Your task to perform on an android device: toggle data saver in the chrome app Image 0: 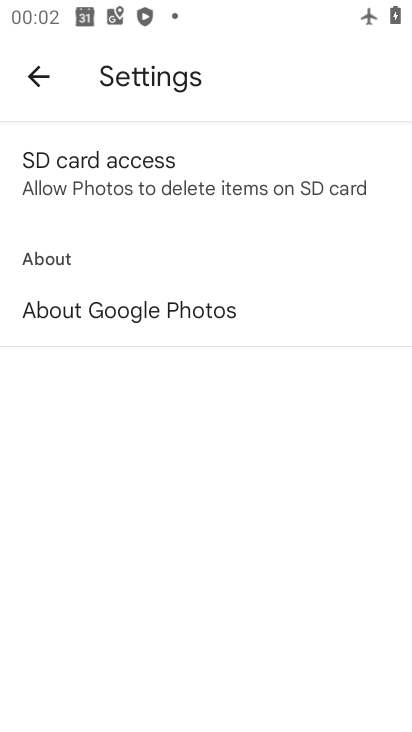
Step 0: press home button
Your task to perform on an android device: toggle data saver in the chrome app Image 1: 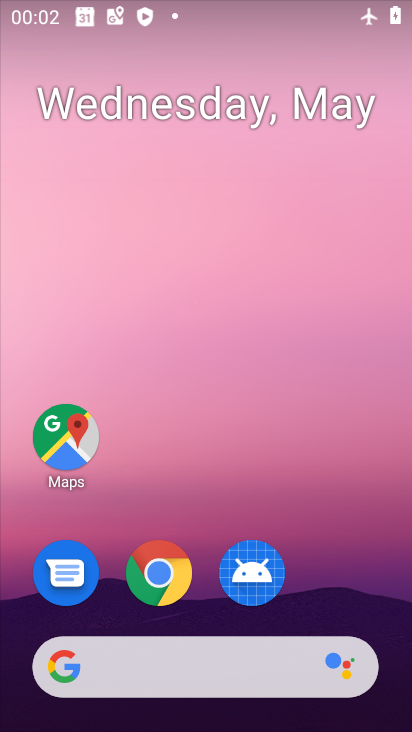
Step 1: click (158, 572)
Your task to perform on an android device: toggle data saver in the chrome app Image 2: 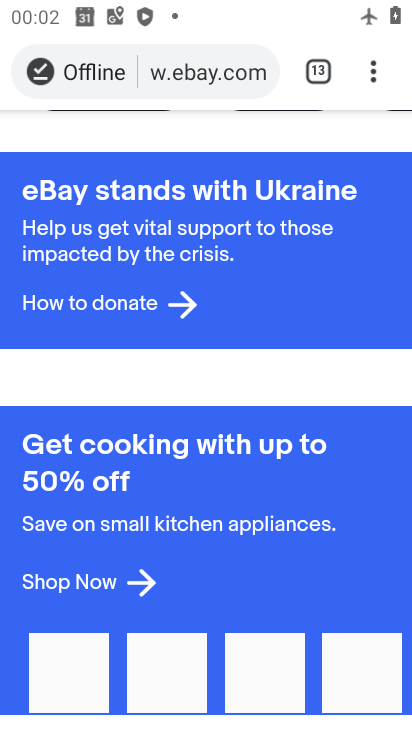
Step 2: click (376, 70)
Your task to perform on an android device: toggle data saver in the chrome app Image 3: 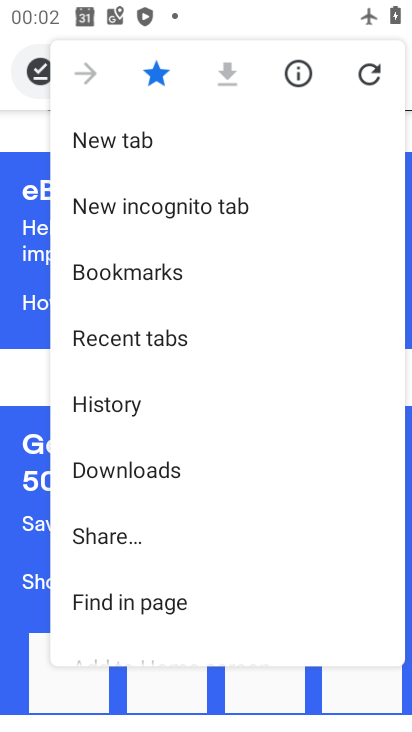
Step 3: drag from (252, 506) to (195, 99)
Your task to perform on an android device: toggle data saver in the chrome app Image 4: 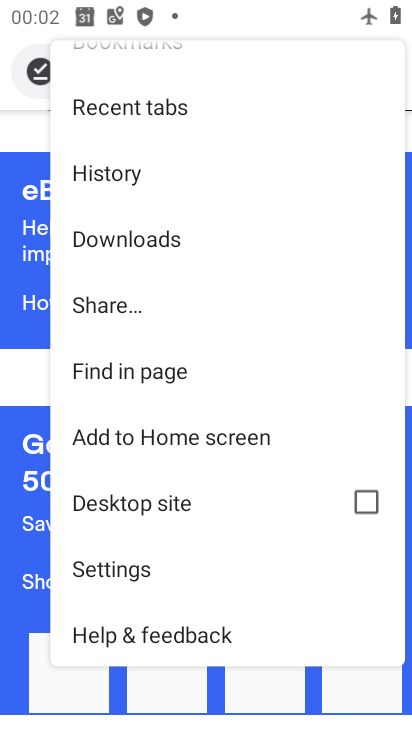
Step 4: click (124, 569)
Your task to perform on an android device: toggle data saver in the chrome app Image 5: 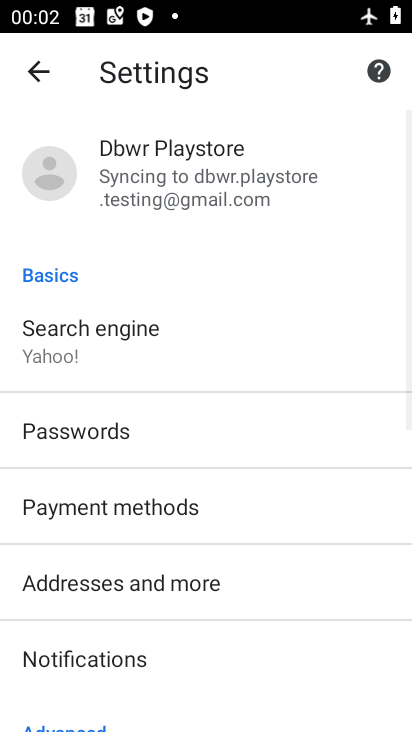
Step 5: drag from (235, 567) to (227, 174)
Your task to perform on an android device: toggle data saver in the chrome app Image 6: 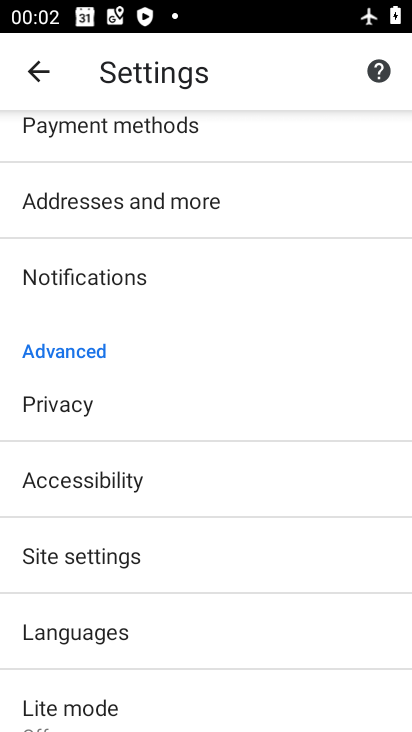
Step 6: drag from (241, 644) to (250, 271)
Your task to perform on an android device: toggle data saver in the chrome app Image 7: 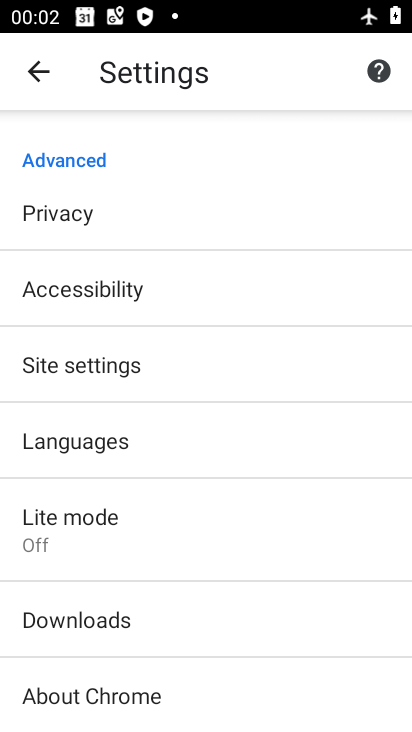
Step 7: click (84, 518)
Your task to perform on an android device: toggle data saver in the chrome app Image 8: 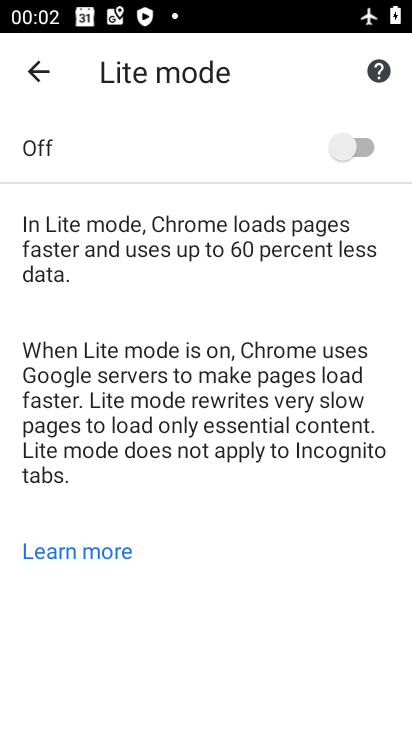
Step 8: click (341, 148)
Your task to perform on an android device: toggle data saver in the chrome app Image 9: 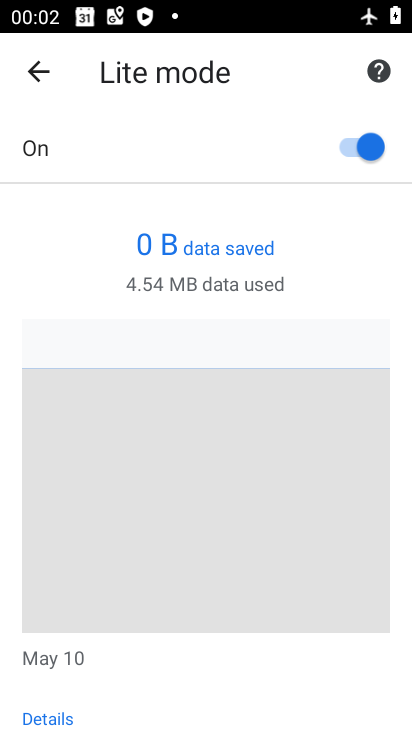
Step 9: task complete